Your task to perform on an android device: change the clock style Image 0: 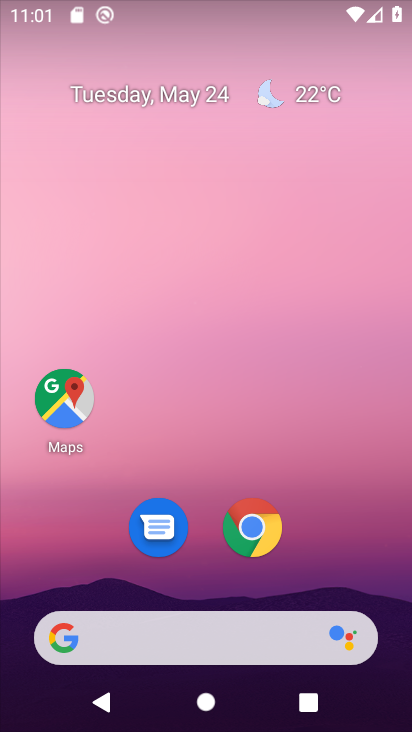
Step 0: press home button
Your task to perform on an android device: change the clock style Image 1: 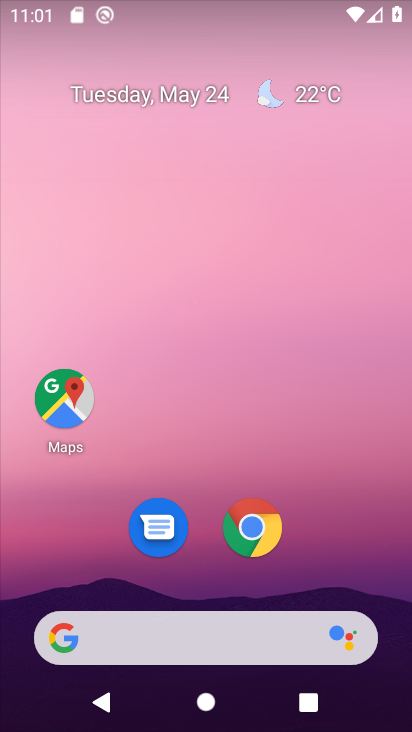
Step 1: drag from (188, 639) to (374, 41)
Your task to perform on an android device: change the clock style Image 2: 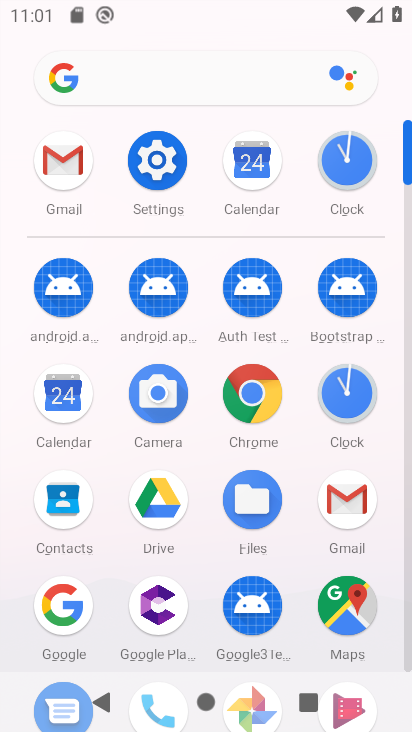
Step 2: click (352, 403)
Your task to perform on an android device: change the clock style Image 3: 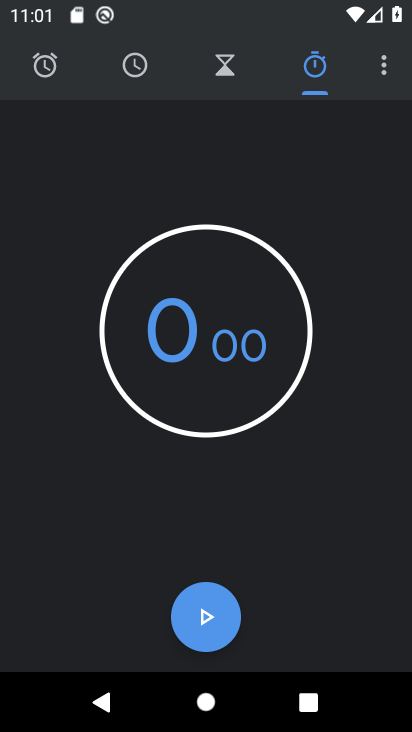
Step 3: click (381, 61)
Your task to perform on an android device: change the clock style Image 4: 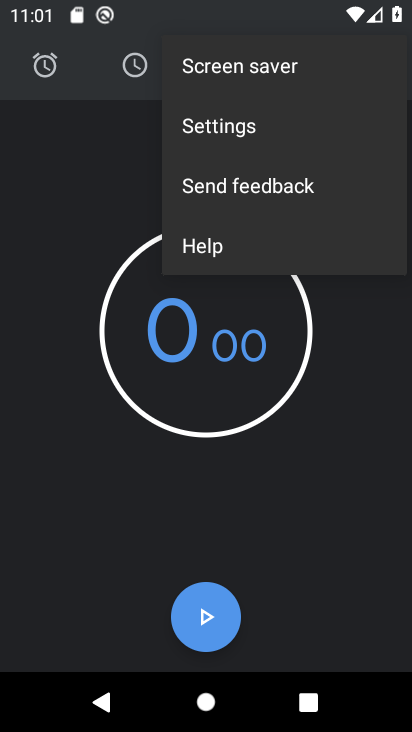
Step 4: click (244, 128)
Your task to perform on an android device: change the clock style Image 5: 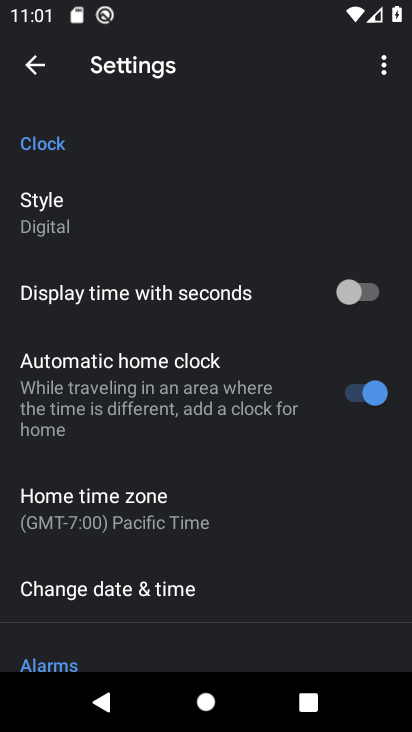
Step 5: click (50, 224)
Your task to perform on an android device: change the clock style Image 6: 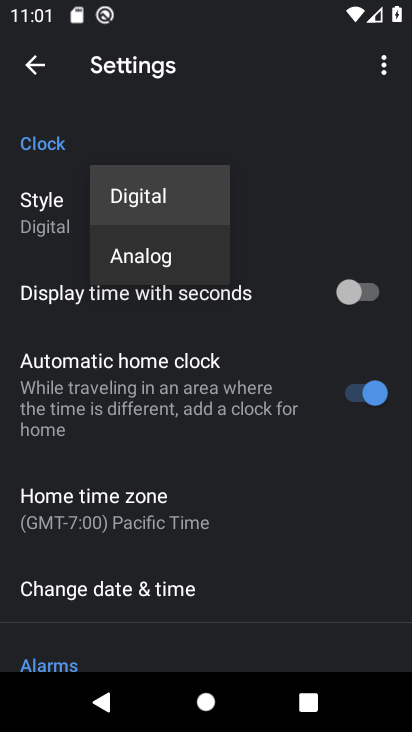
Step 6: click (127, 250)
Your task to perform on an android device: change the clock style Image 7: 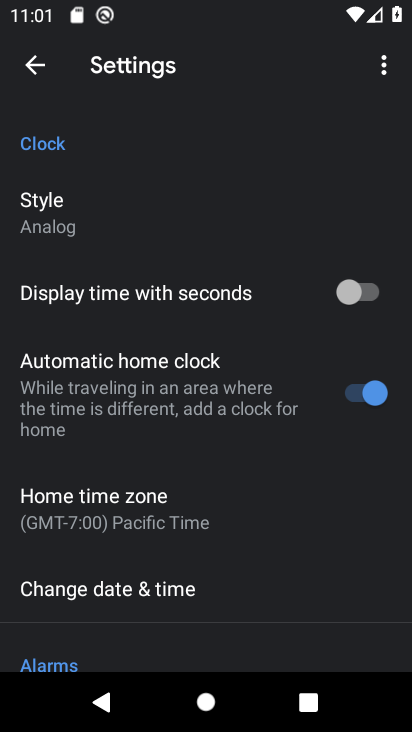
Step 7: task complete